Your task to perform on an android device: allow cookies in the chrome app Image 0: 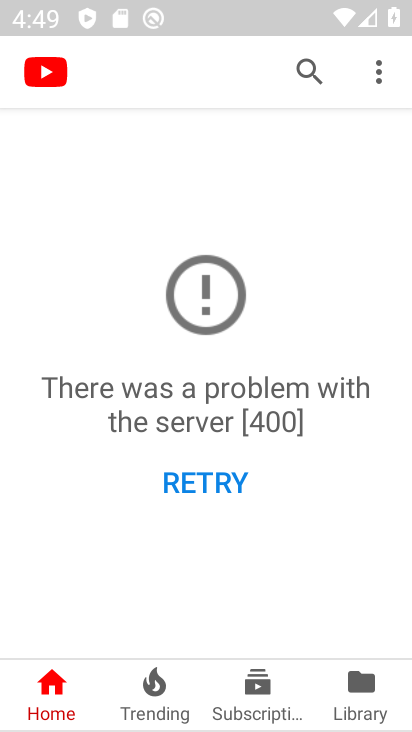
Step 0: press back button
Your task to perform on an android device: allow cookies in the chrome app Image 1: 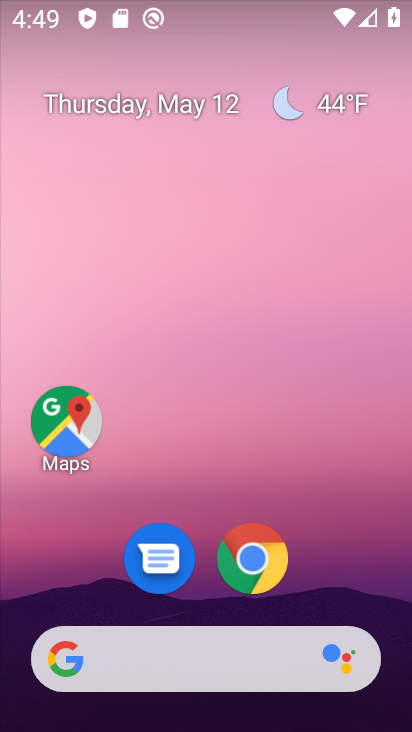
Step 1: drag from (353, 563) to (244, 16)
Your task to perform on an android device: allow cookies in the chrome app Image 2: 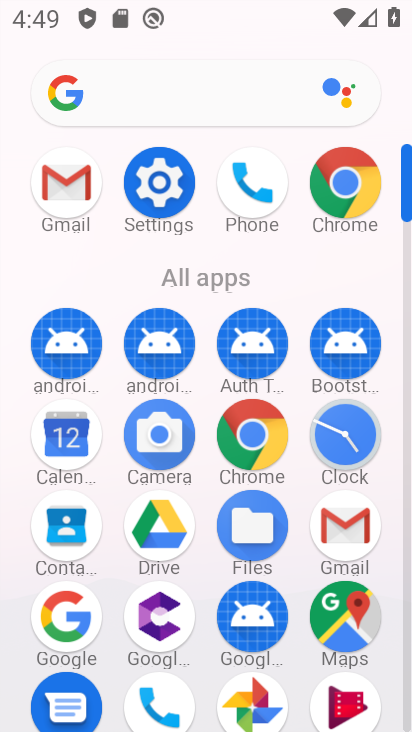
Step 2: drag from (17, 501) to (17, 248)
Your task to perform on an android device: allow cookies in the chrome app Image 3: 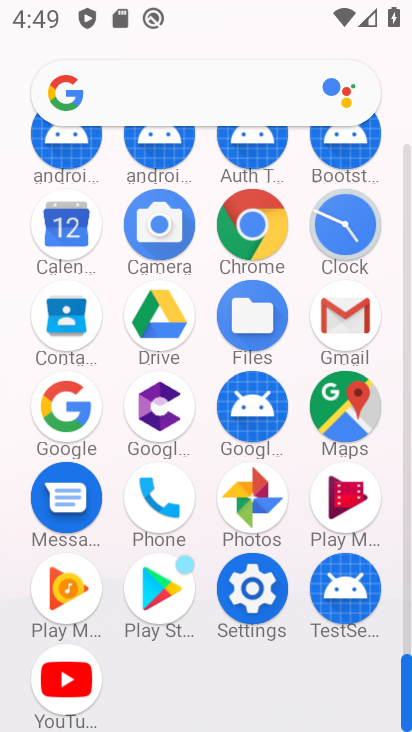
Step 3: click (246, 220)
Your task to perform on an android device: allow cookies in the chrome app Image 4: 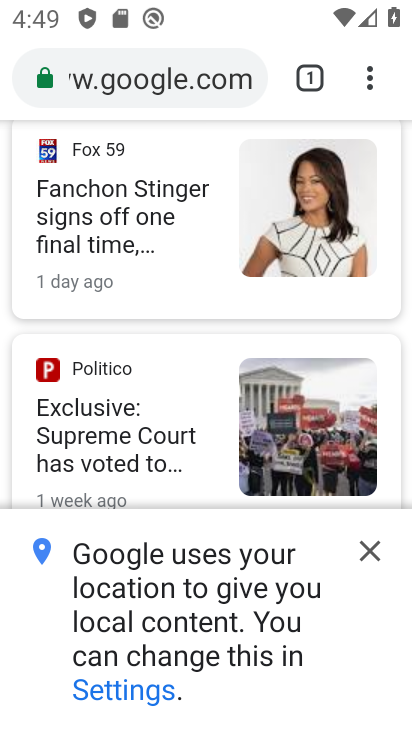
Step 4: click (365, 549)
Your task to perform on an android device: allow cookies in the chrome app Image 5: 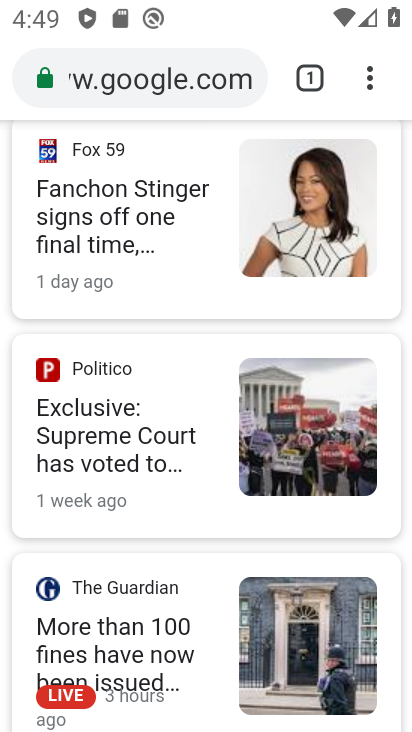
Step 5: drag from (365, 77) to (167, 612)
Your task to perform on an android device: allow cookies in the chrome app Image 6: 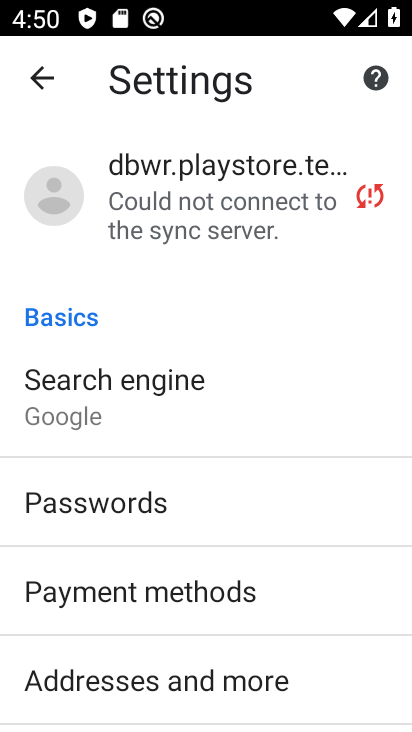
Step 6: drag from (214, 613) to (212, 320)
Your task to perform on an android device: allow cookies in the chrome app Image 7: 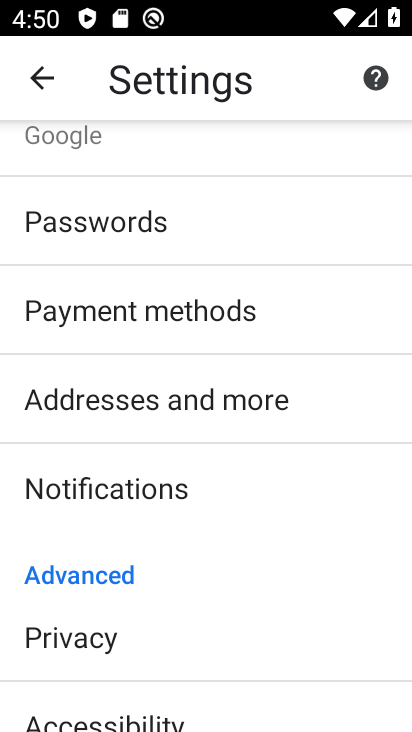
Step 7: drag from (229, 571) to (239, 217)
Your task to perform on an android device: allow cookies in the chrome app Image 8: 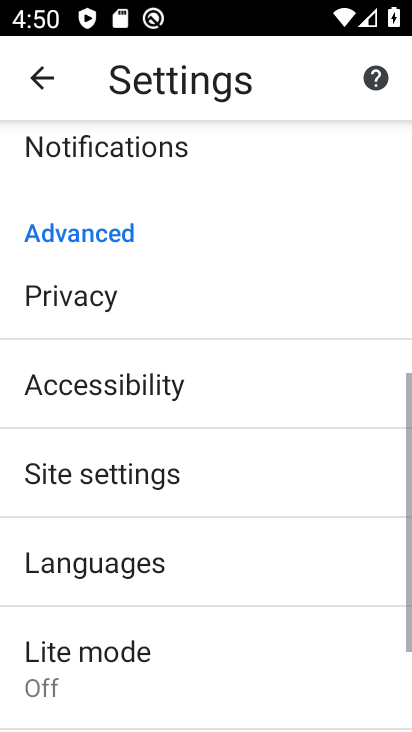
Step 8: drag from (230, 614) to (233, 248)
Your task to perform on an android device: allow cookies in the chrome app Image 9: 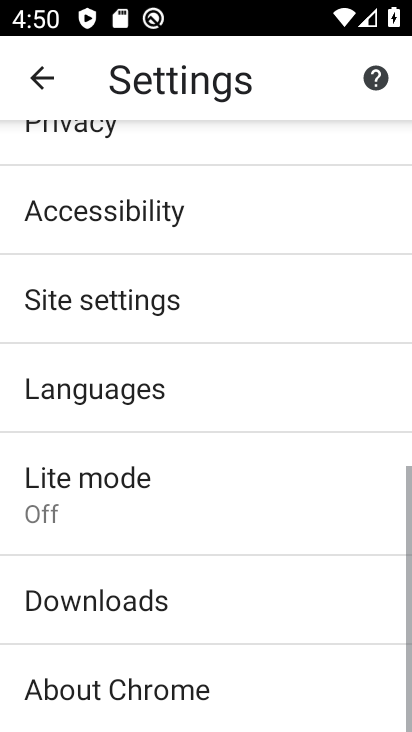
Step 9: drag from (235, 531) to (232, 228)
Your task to perform on an android device: allow cookies in the chrome app Image 10: 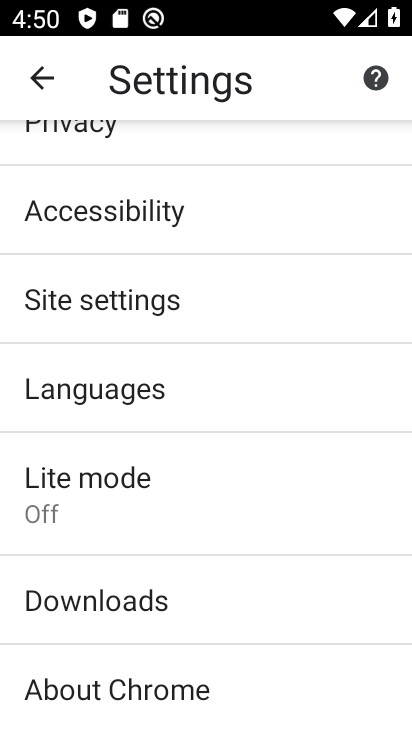
Step 10: click (166, 297)
Your task to perform on an android device: allow cookies in the chrome app Image 11: 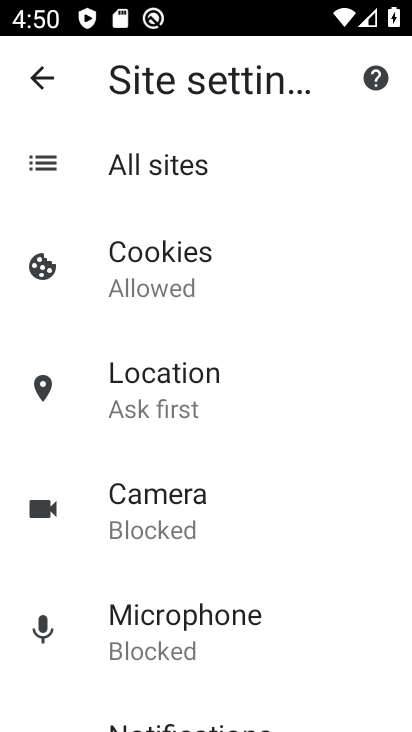
Step 11: click (204, 246)
Your task to perform on an android device: allow cookies in the chrome app Image 12: 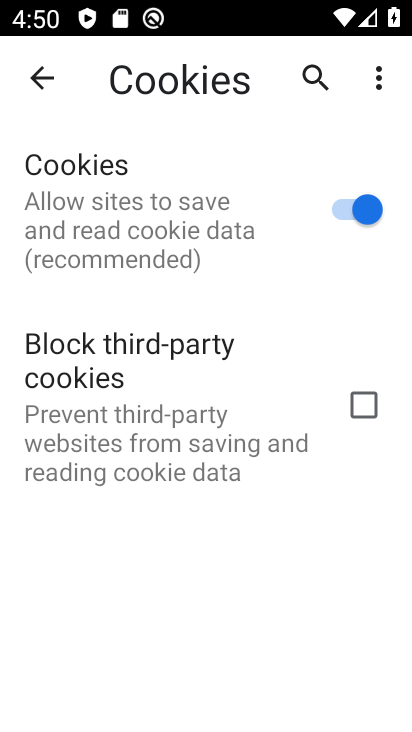
Step 12: task complete